Your task to perform on an android device: remove spam from my inbox in the gmail app Image 0: 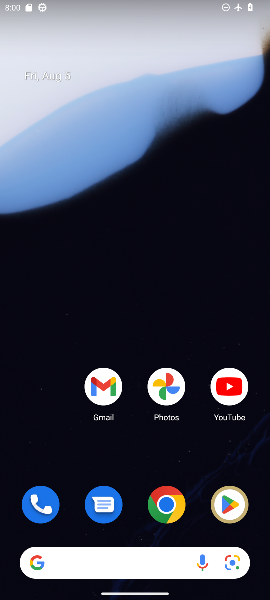
Step 0: click (98, 399)
Your task to perform on an android device: remove spam from my inbox in the gmail app Image 1: 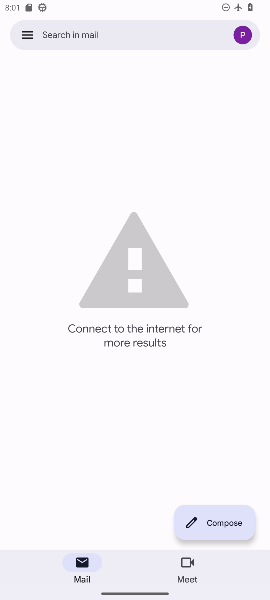
Step 1: click (24, 32)
Your task to perform on an android device: remove spam from my inbox in the gmail app Image 2: 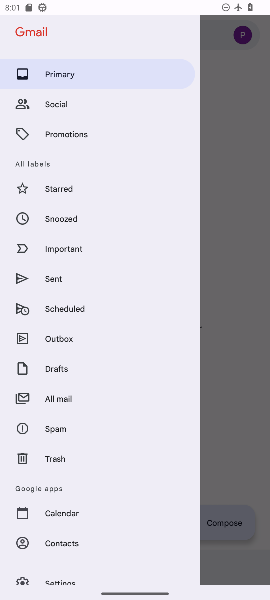
Step 2: click (58, 429)
Your task to perform on an android device: remove spam from my inbox in the gmail app Image 3: 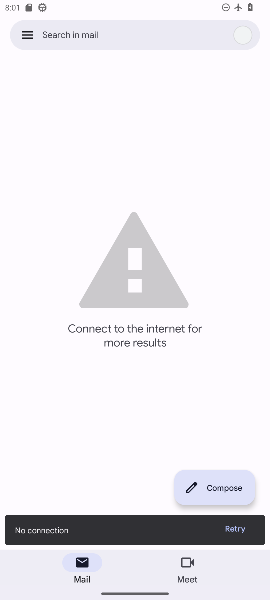
Step 3: task complete